Your task to perform on an android device: Go to CNN.com Image 0: 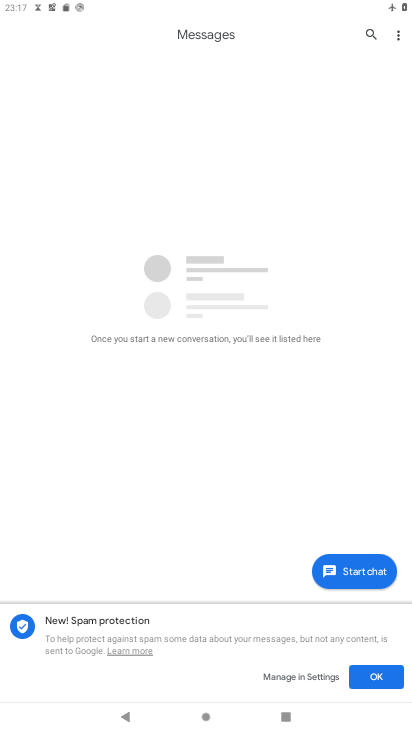
Step 0: press home button
Your task to perform on an android device: Go to CNN.com Image 1: 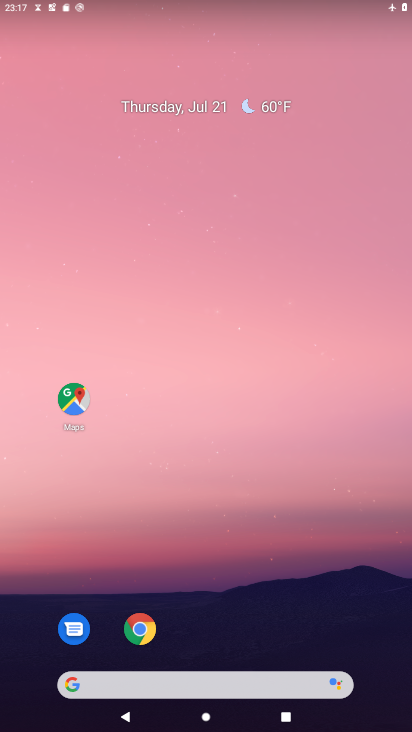
Step 1: click (145, 635)
Your task to perform on an android device: Go to CNN.com Image 2: 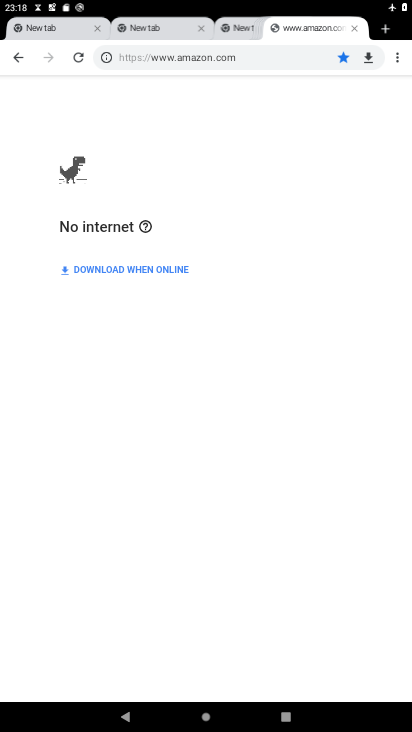
Step 2: click (389, 31)
Your task to perform on an android device: Go to CNN.com Image 3: 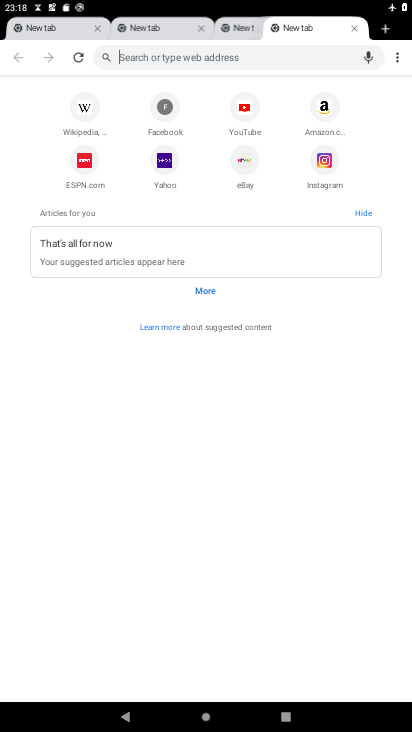
Step 3: click (242, 52)
Your task to perform on an android device: Go to CNN.com Image 4: 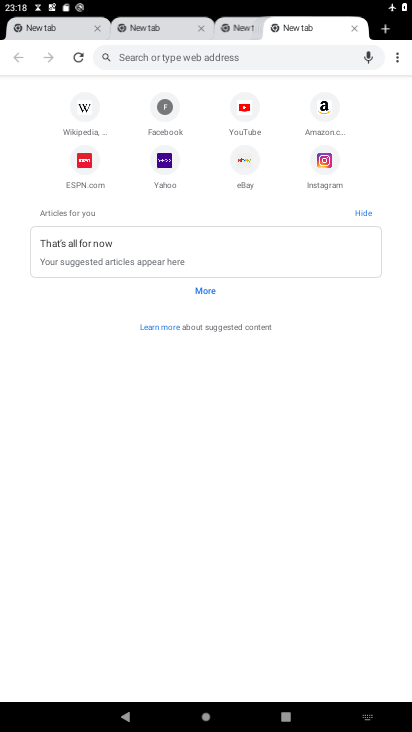
Step 4: type "CNN.com "
Your task to perform on an android device: Go to CNN.com Image 5: 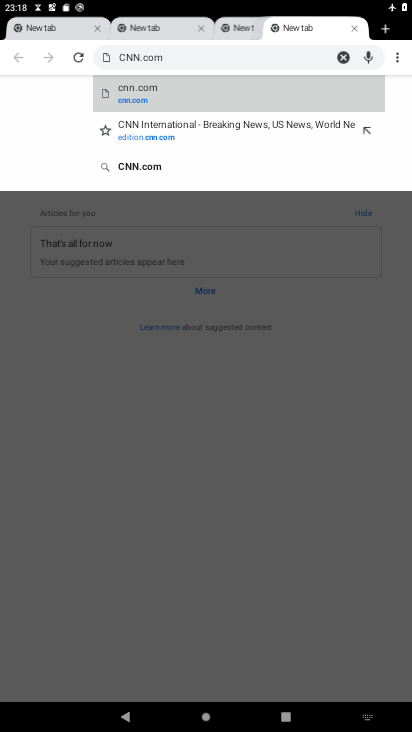
Step 5: click (164, 94)
Your task to perform on an android device: Go to CNN.com Image 6: 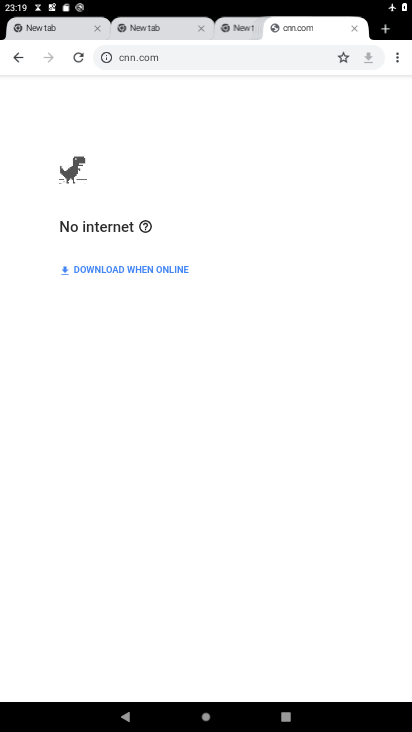
Step 6: task complete